Your task to perform on an android device: toggle priority inbox in the gmail app Image 0: 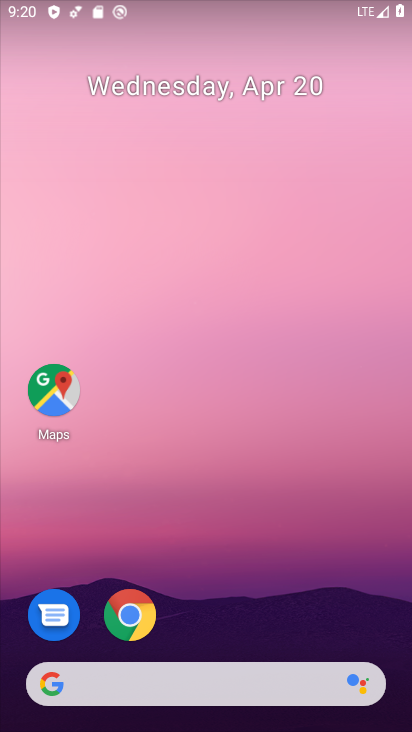
Step 0: drag from (249, 610) to (203, 14)
Your task to perform on an android device: toggle priority inbox in the gmail app Image 1: 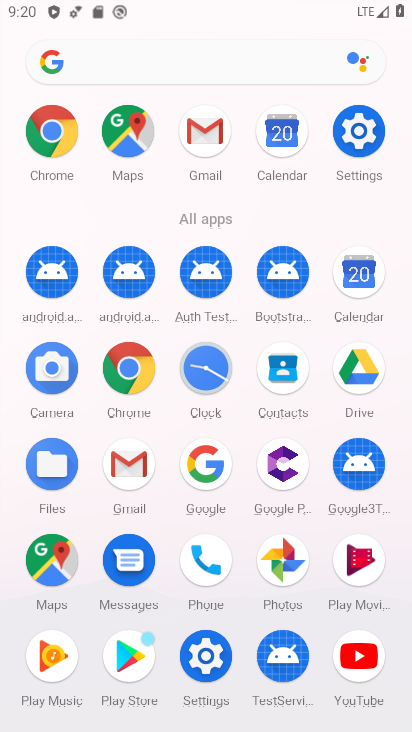
Step 1: click (204, 137)
Your task to perform on an android device: toggle priority inbox in the gmail app Image 2: 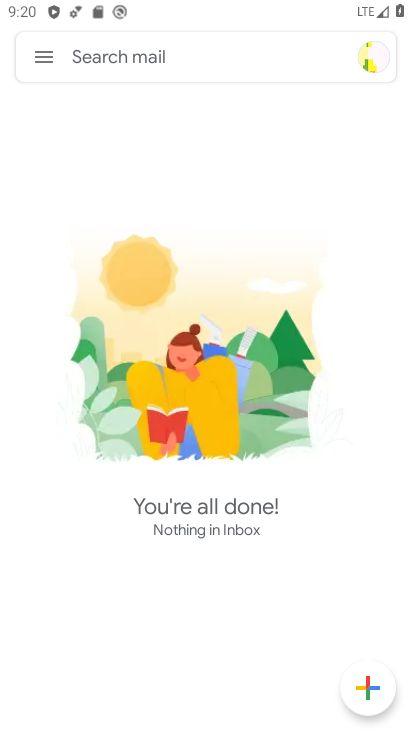
Step 2: click (45, 57)
Your task to perform on an android device: toggle priority inbox in the gmail app Image 3: 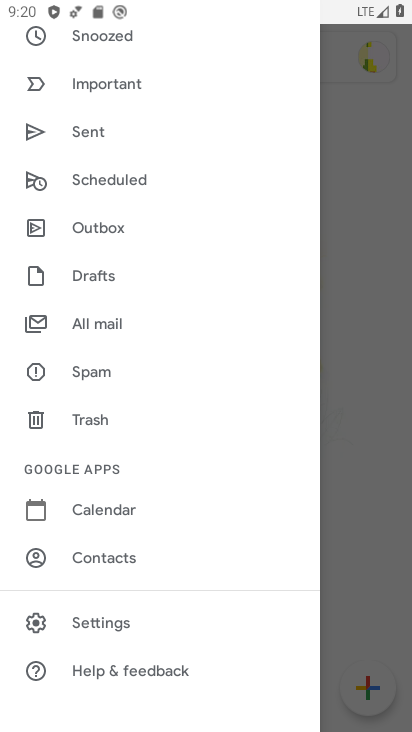
Step 3: click (115, 624)
Your task to perform on an android device: toggle priority inbox in the gmail app Image 4: 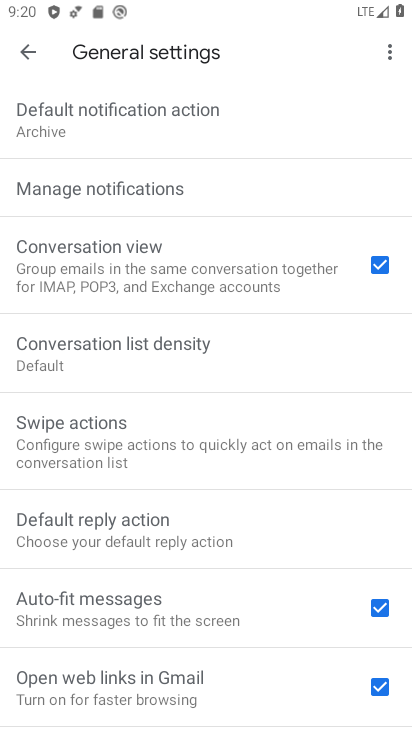
Step 4: click (26, 50)
Your task to perform on an android device: toggle priority inbox in the gmail app Image 5: 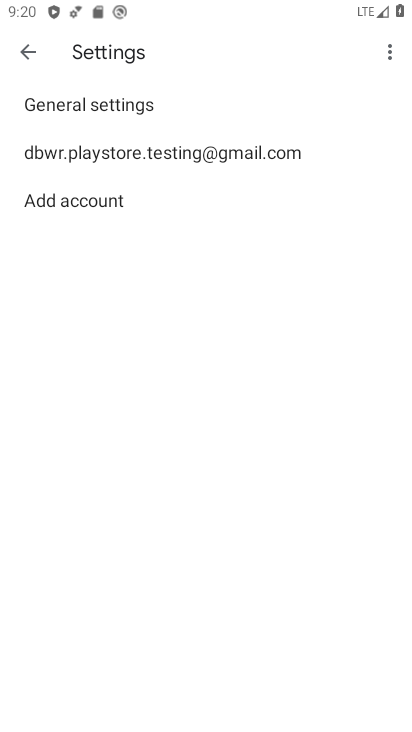
Step 5: click (85, 149)
Your task to perform on an android device: toggle priority inbox in the gmail app Image 6: 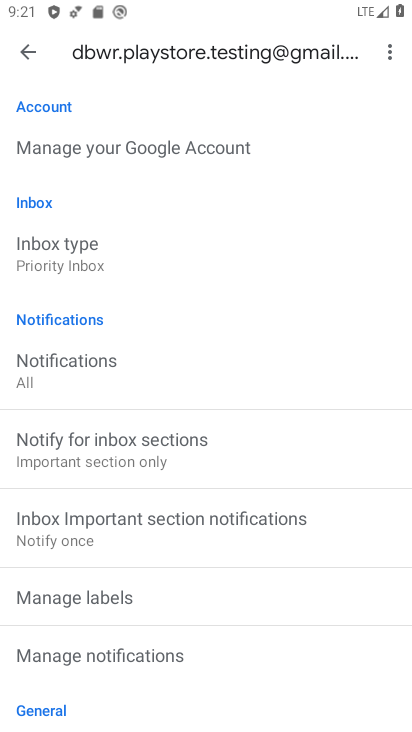
Step 6: click (66, 256)
Your task to perform on an android device: toggle priority inbox in the gmail app Image 7: 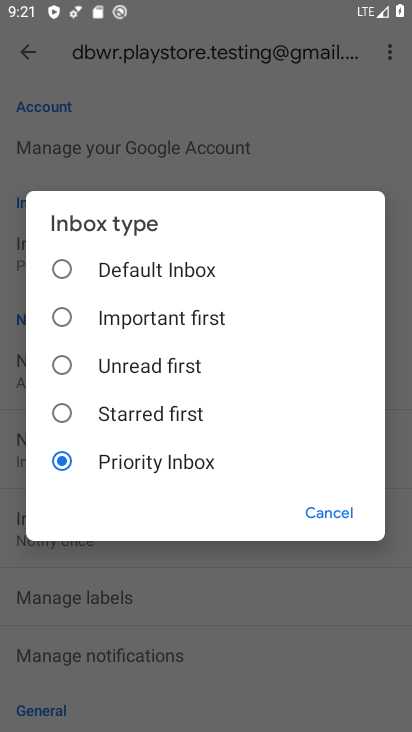
Step 7: click (61, 273)
Your task to perform on an android device: toggle priority inbox in the gmail app Image 8: 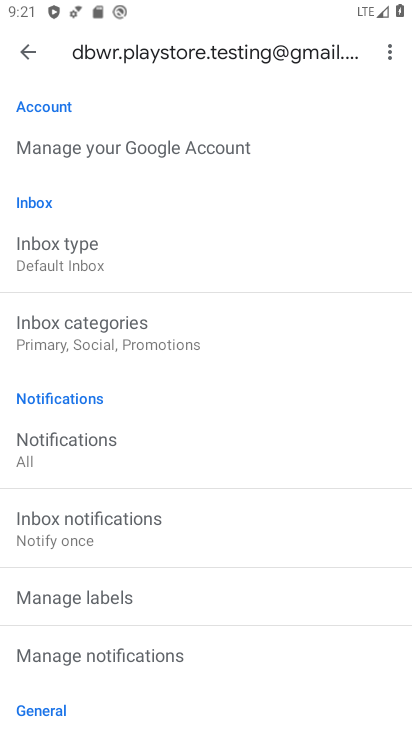
Step 8: task complete